Your task to perform on an android device: empty trash in the gmail app Image 0: 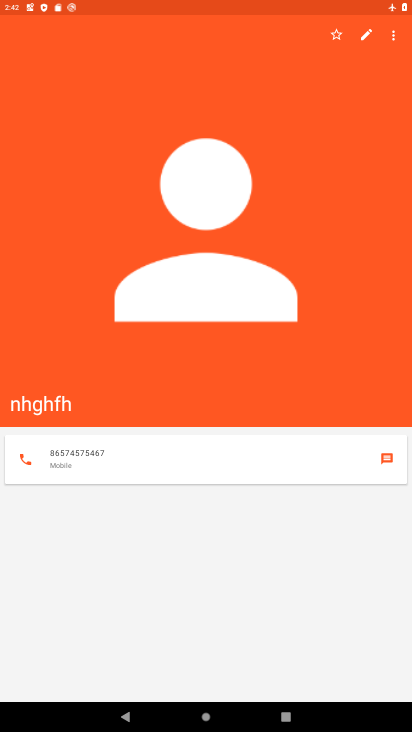
Step 0: press home button
Your task to perform on an android device: empty trash in the gmail app Image 1: 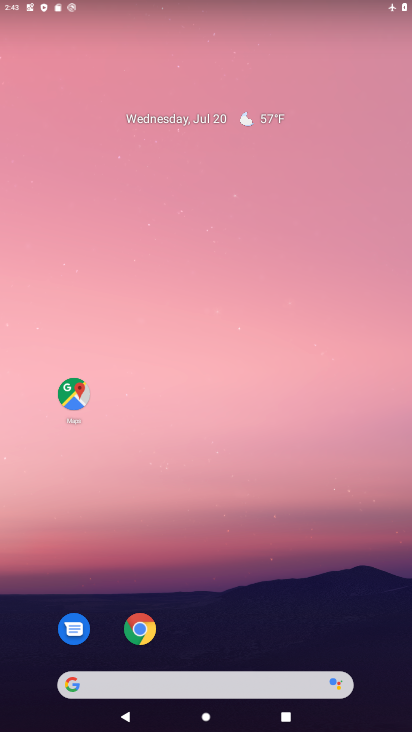
Step 1: drag from (214, 611) to (195, 75)
Your task to perform on an android device: empty trash in the gmail app Image 2: 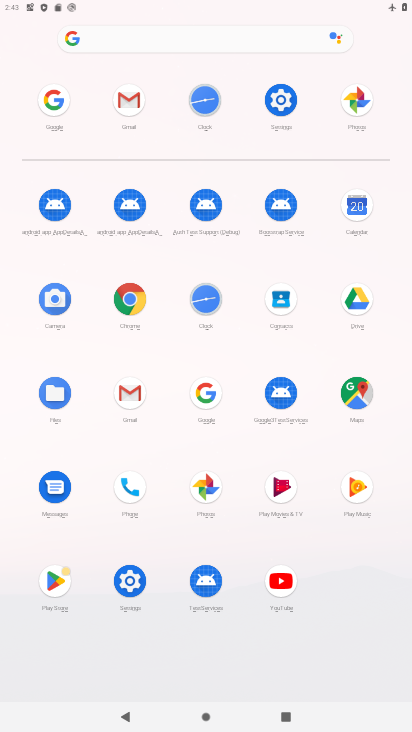
Step 2: click (136, 114)
Your task to perform on an android device: empty trash in the gmail app Image 3: 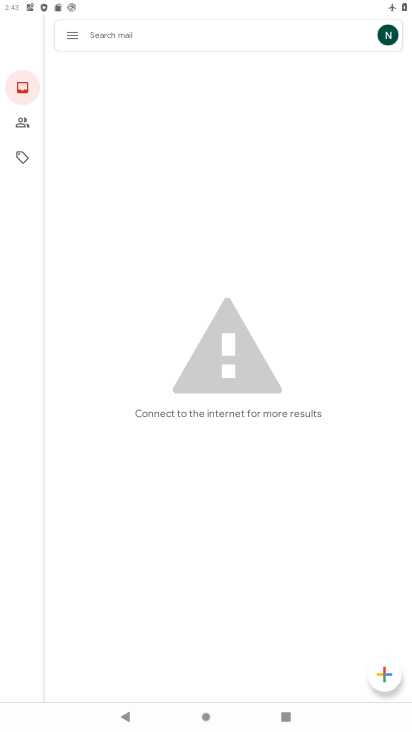
Step 3: click (70, 38)
Your task to perform on an android device: empty trash in the gmail app Image 4: 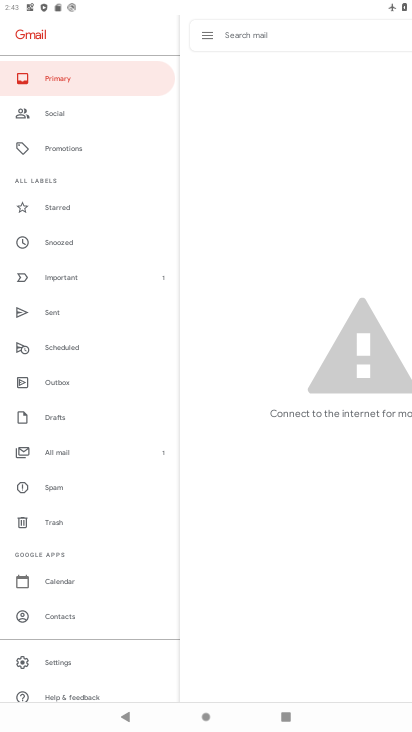
Step 4: click (47, 521)
Your task to perform on an android device: empty trash in the gmail app Image 5: 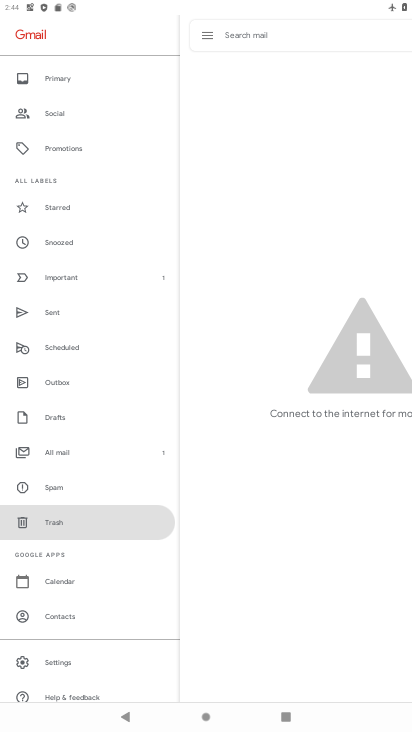
Step 5: task complete